Your task to perform on an android device: search for starred emails in the gmail app Image 0: 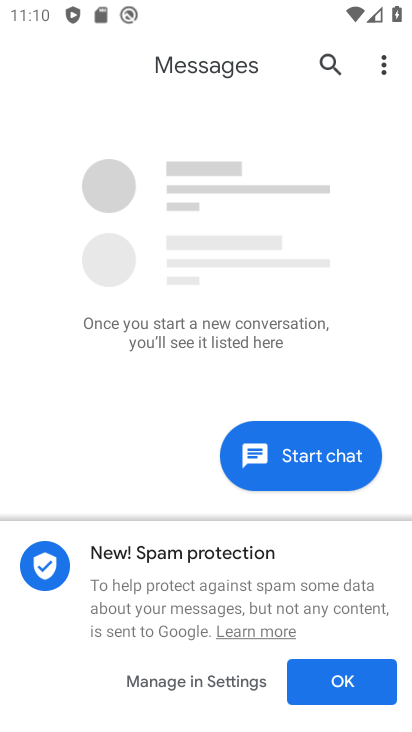
Step 0: press home button
Your task to perform on an android device: search for starred emails in the gmail app Image 1: 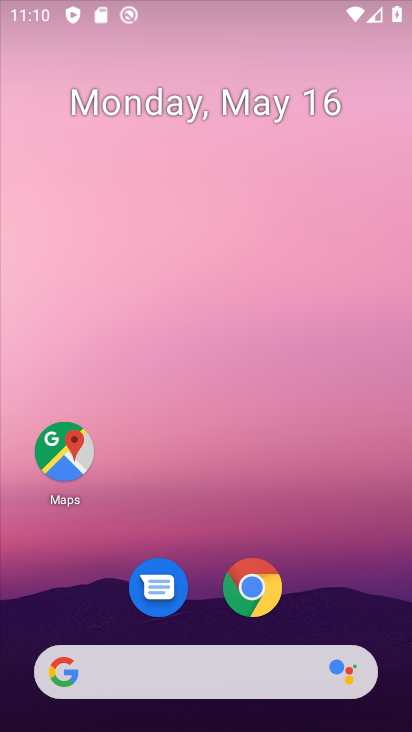
Step 1: drag from (374, 572) to (302, 40)
Your task to perform on an android device: search for starred emails in the gmail app Image 2: 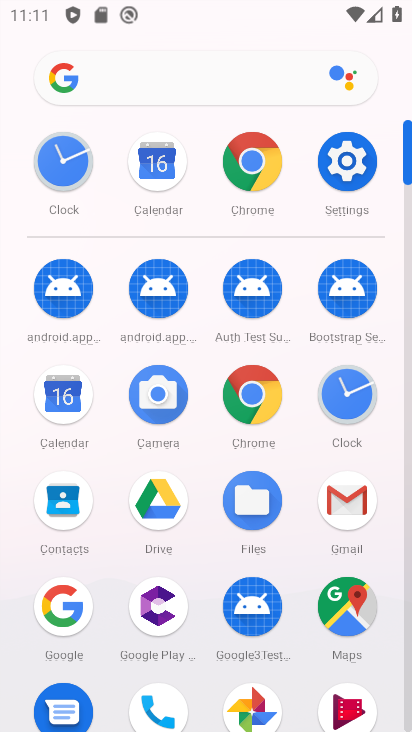
Step 2: click (361, 503)
Your task to perform on an android device: search for starred emails in the gmail app Image 3: 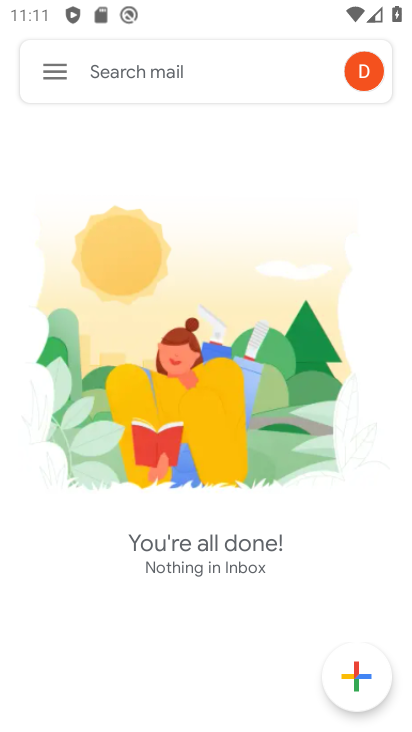
Step 3: click (41, 70)
Your task to perform on an android device: search for starred emails in the gmail app Image 4: 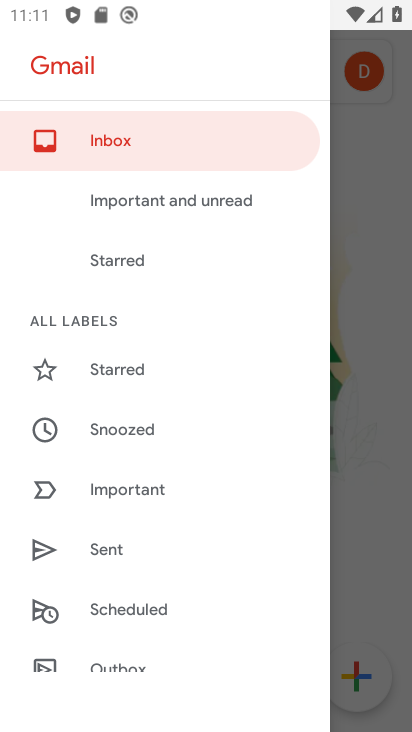
Step 4: click (145, 358)
Your task to perform on an android device: search for starred emails in the gmail app Image 5: 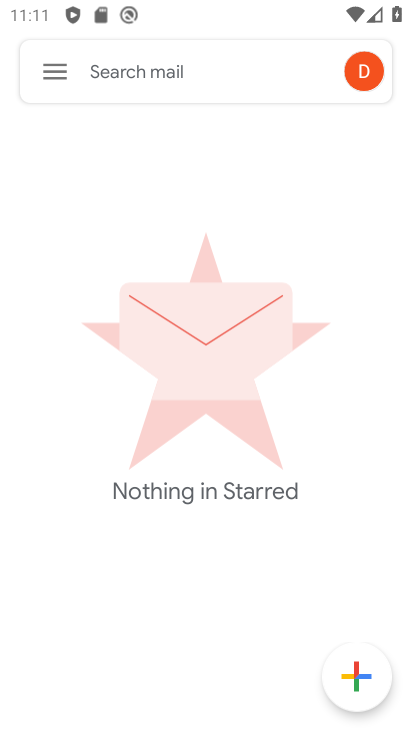
Step 5: task complete